Your task to perform on an android device: When is my next meeting? Image 0: 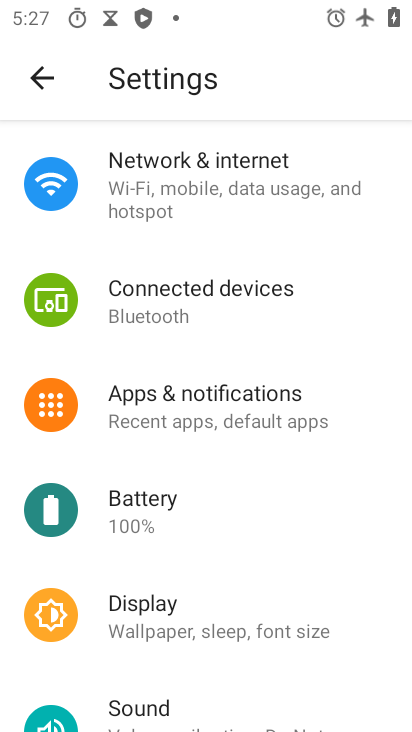
Step 0: press home button
Your task to perform on an android device: When is my next meeting? Image 1: 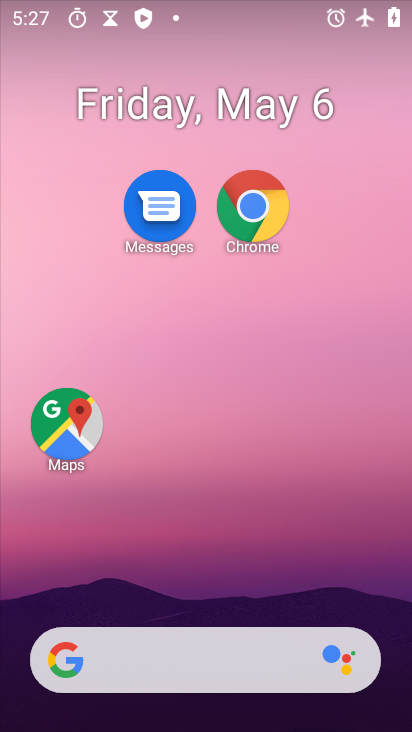
Step 1: drag from (175, 628) to (190, 199)
Your task to perform on an android device: When is my next meeting? Image 2: 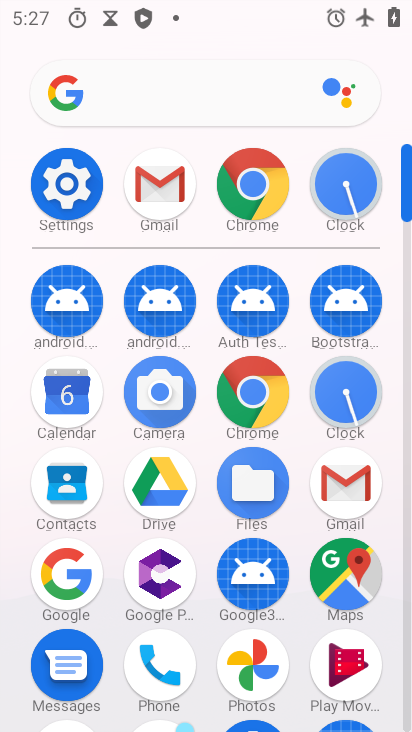
Step 2: click (66, 408)
Your task to perform on an android device: When is my next meeting? Image 3: 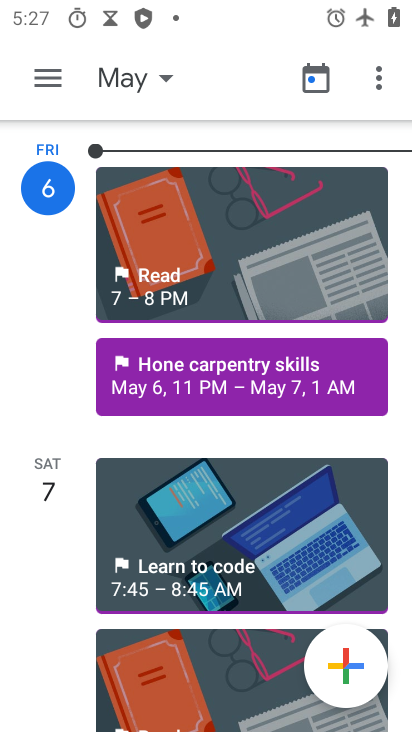
Step 3: drag from (62, 653) to (50, 379)
Your task to perform on an android device: When is my next meeting? Image 4: 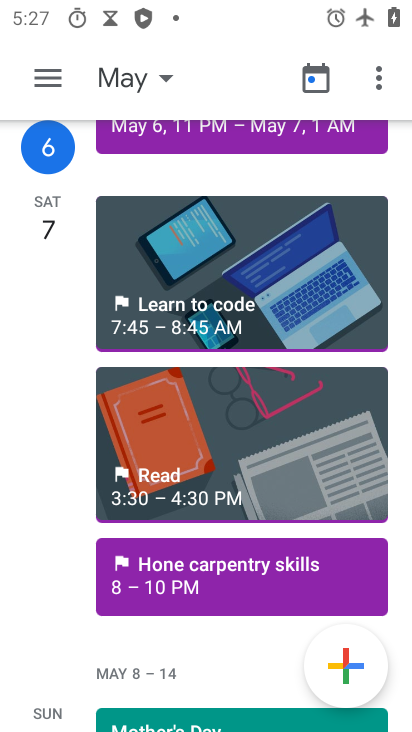
Step 4: click (376, 74)
Your task to perform on an android device: When is my next meeting? Image 5: 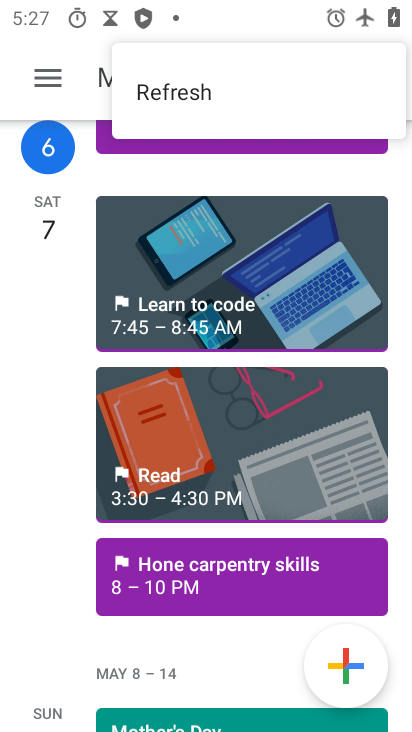
Step 5: click (135, 97)
Your task to perform on an android device: When is my next meeting? Image 6: 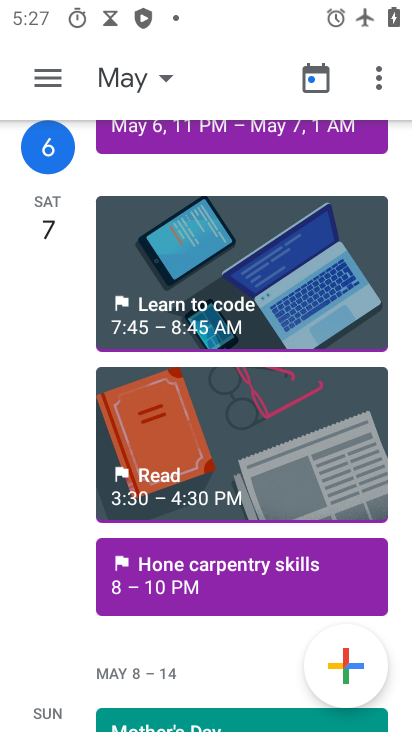
Step 6: task complete